Your task to perform on an android device: toggle data saver in the chrome app Image 0: 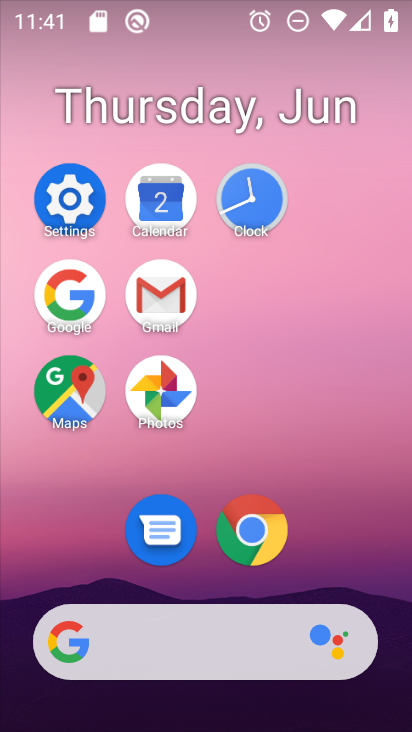
Step 0: click (260, 505)
Your task to perform on an android device: toggle data saver in the chrome app Image 1: 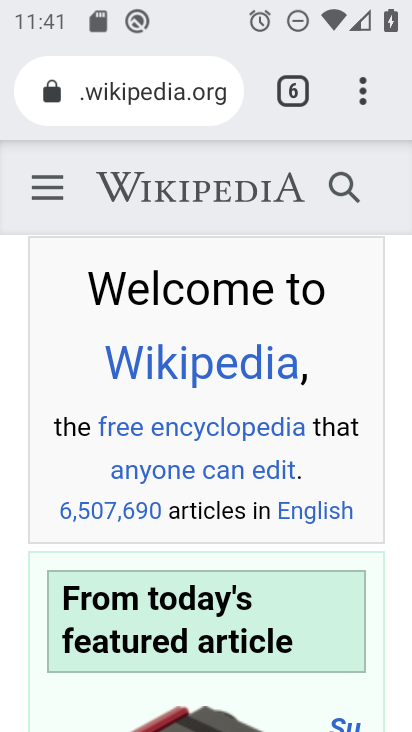
Step 1: click (379, 100)
Your task to perform on an android device: toggle data saver in the chrome app Image 2: 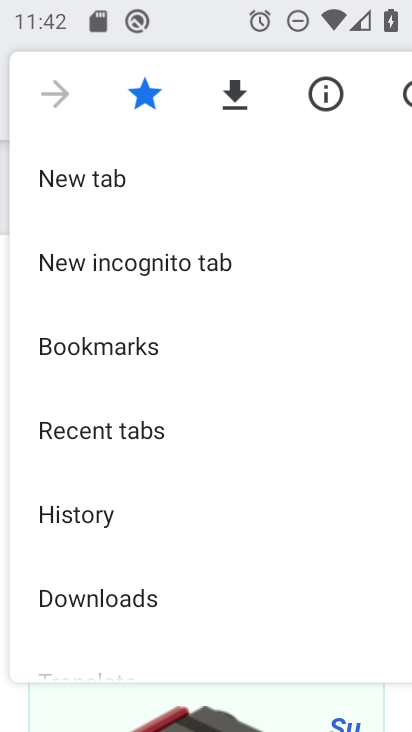
Step 2: drag from (255, 567) to (212, 150)
Your task to perform on an android device: toggle data saver in the chrome app Image 3: 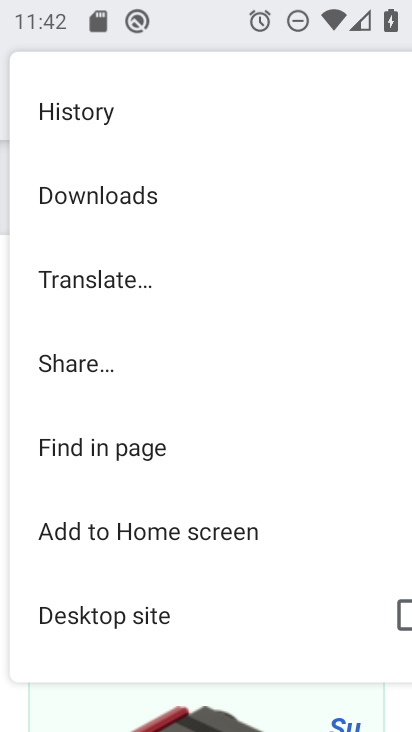
Step 3: drag from (183, 580) to (208, 173)
Your task to perform on an android device: toggle data saver in the chrome app Image 4: 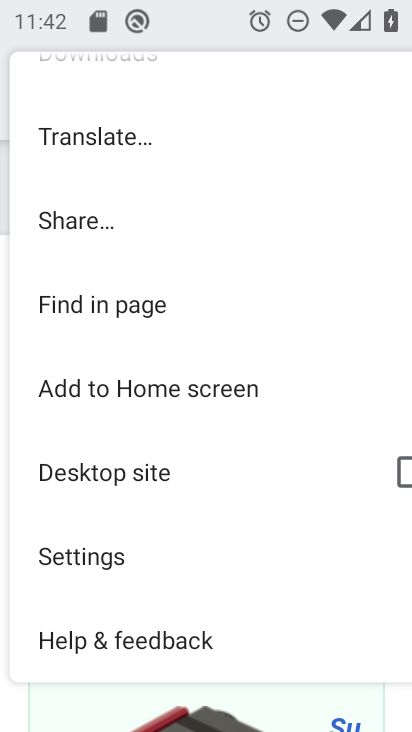
Step 4: click (115, 563)
Your task to perform on an android device: toggle data saver in the chrome app Image 5: 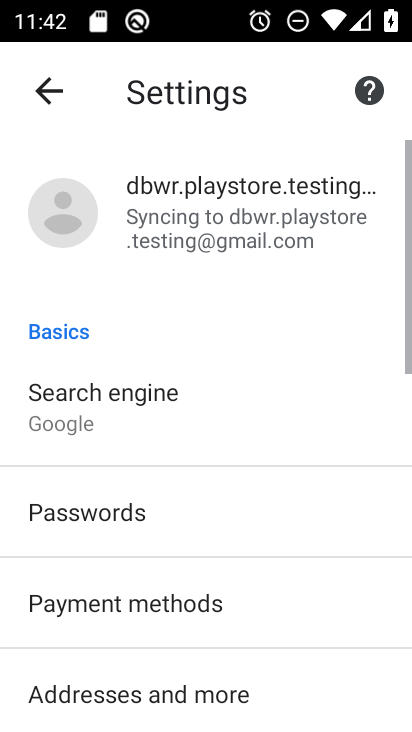
Step 5: drag from (114, 563) to (175, 173)
Your task to perform on an android device: toggle data saver in the chrome app Image 6: 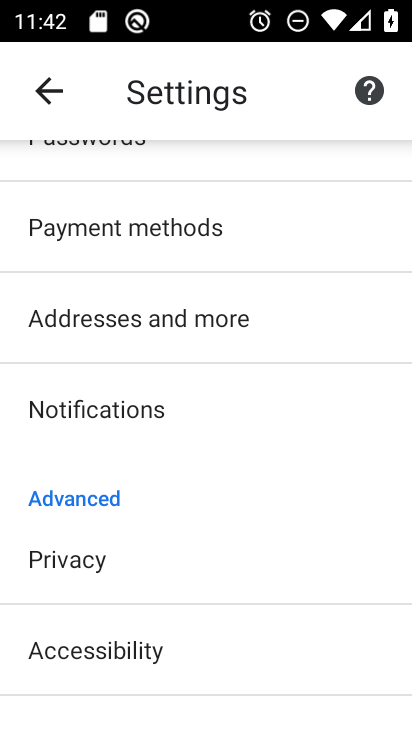
Step 6: drag from (216, 579) to (221, 155)
Your task to perform on an android device: toggle data saver in the chrome app Image 7: 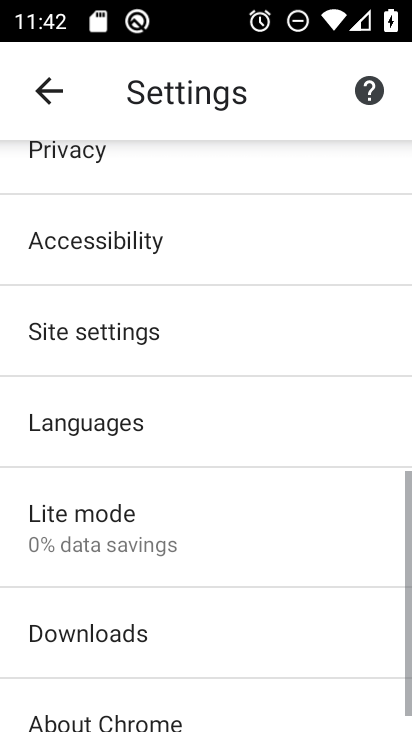
Step 7: click (191, 541)
Your task to perform on an android device: toggle data saver in the chrome app Image 8: 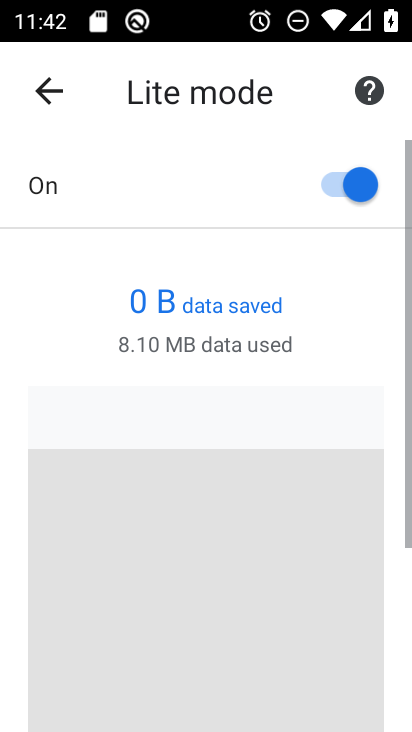
Step 8: click (359, 192)
Your task to perform on an android device: toggle data saver in the chrome app Image 9: 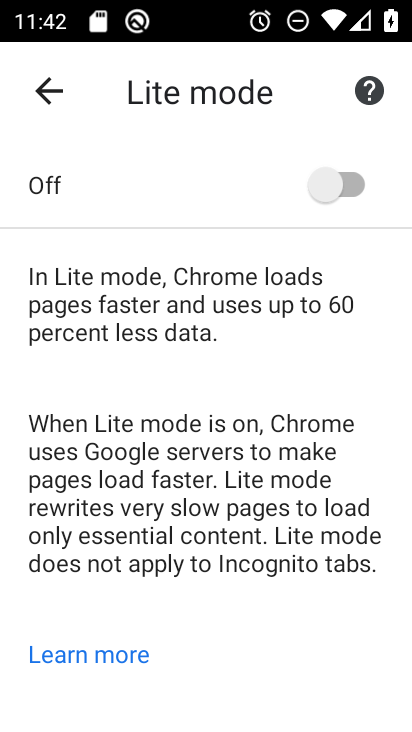
Step 9: task complete